Your task to perform on an android device: Add "usb-b" to the cart on target Image 0: 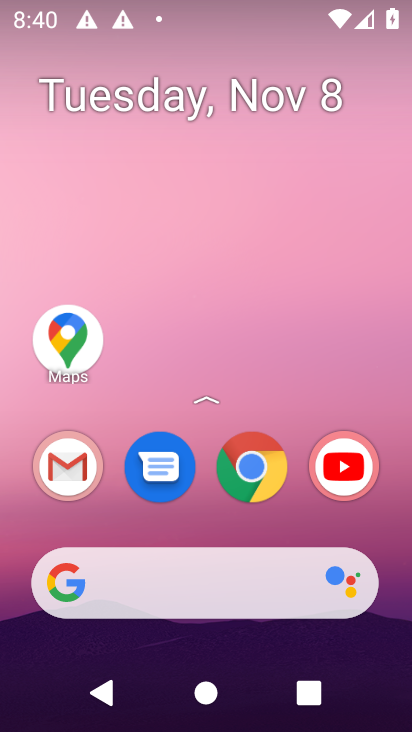
Step 0: click (137, 608)
Your task to perform on an android device: Add "usb-b" to the cart on target Image 1: 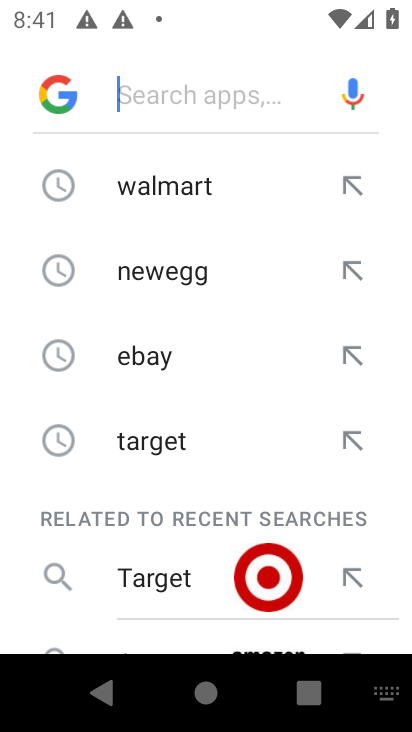
Step 1: click (187, 456)
Your task to perform on an android device: Add "usb-b" to the cart on target Image 2: 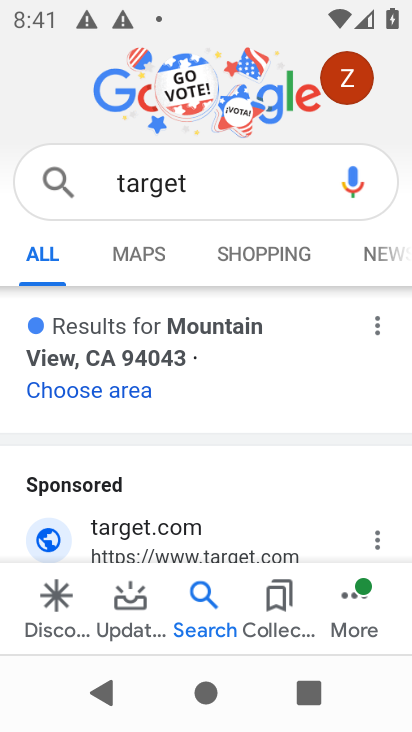
Step 2: click (124, 529)
Your task to perform on an android device: Add "usb-b" to the cart on target Image 3: 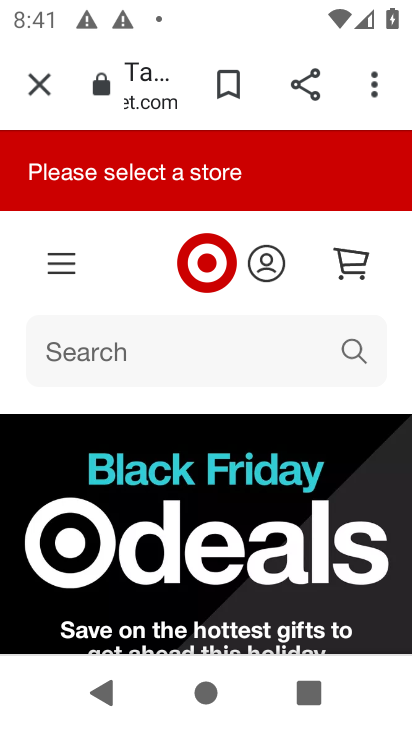
Step 3: click (278, 367)
Your task to perform on an android device: Add "usb-b" to the cart on target Image 4: 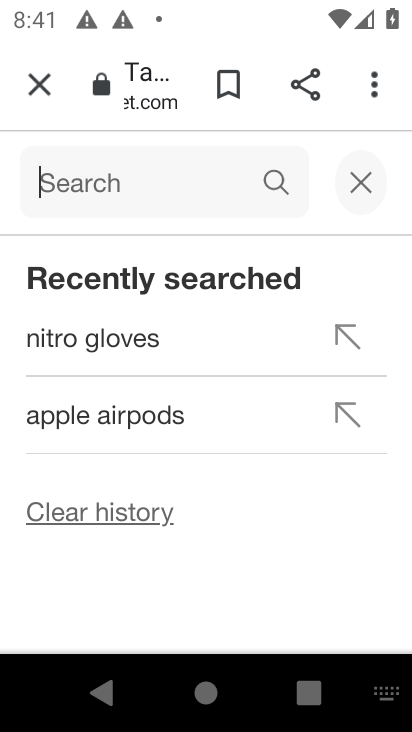
Step 4: type "ubs-b"
Your task to perform on an android device: Add "usb-b" to the cart on target Image 5: 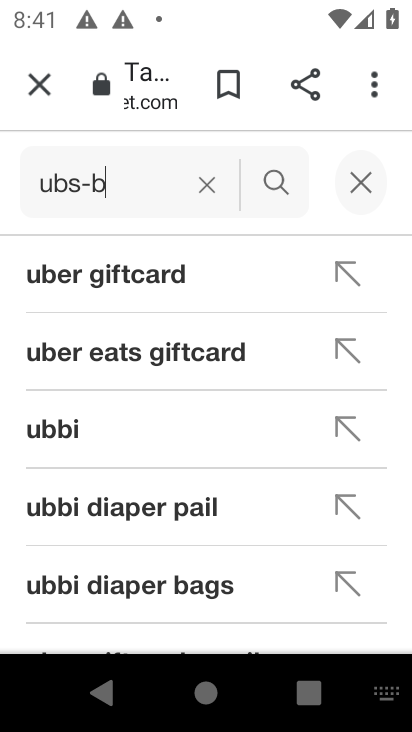
Step 5: click (255, 187)
Your task to perform on an android device: Add "usb-b" to the cart on target Image 6: 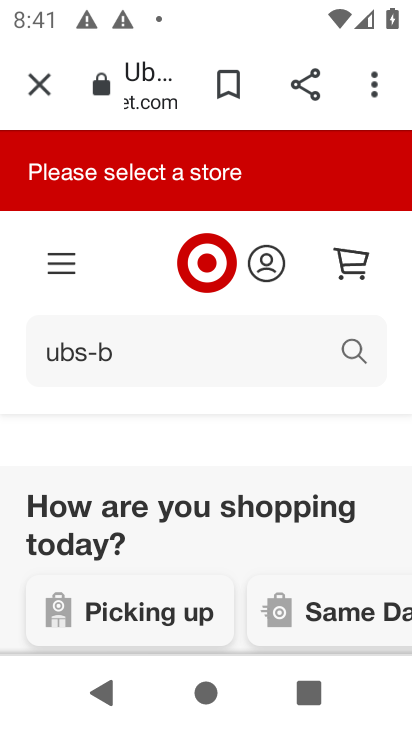
Step 6: task complete